Your task to perform on an android device: Go to Google maps Image 0: 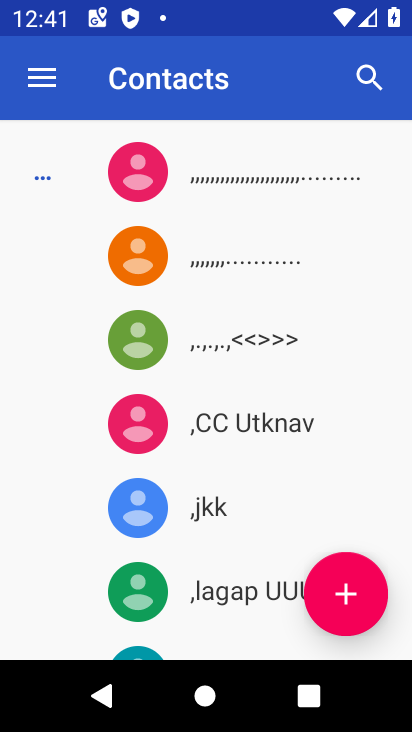
Step 0: press home button
Your task to perform on an android device: Go to Google maps Image 1: 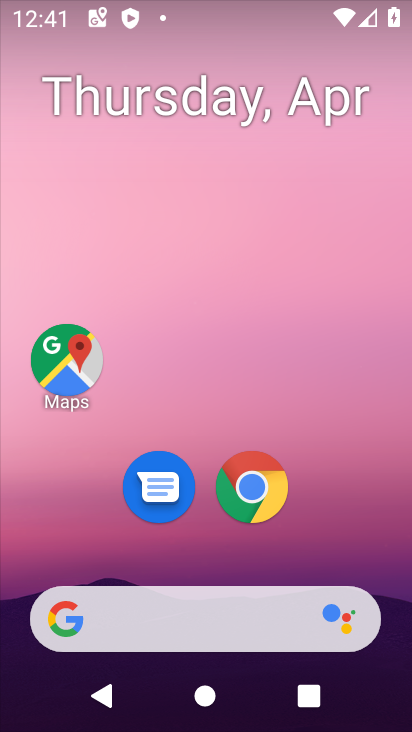
Step 1: drag from (308, 524) to (315, 145)
Your task to perform on an android device: Go to Google maps Image 2: 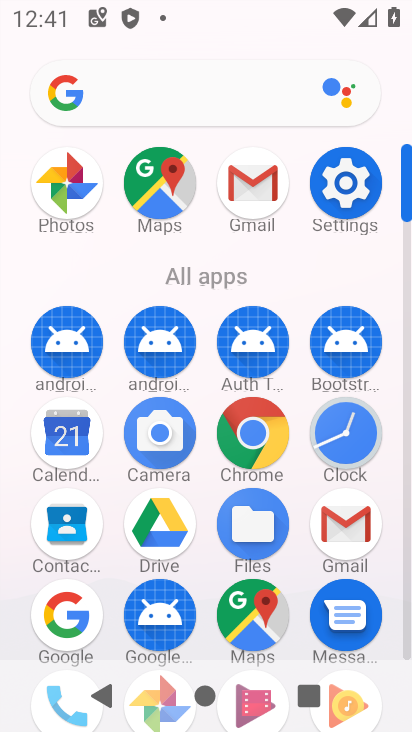
Step 2: click (176, 189)
Your task to perform on an android device: Go to Google maps Image 3: 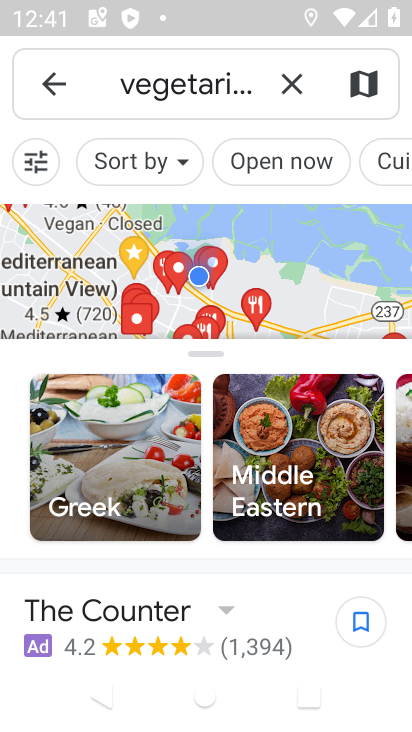
Step 3: click (38, 92)
Your task to perform on an android device: Go to Google maps Image 4: 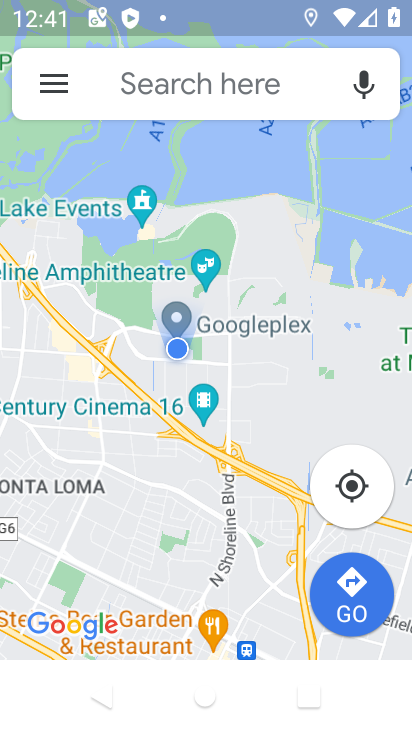
Step 4: task complete